Your task to perform on an android device: turn off priority inbox in the gmail app Image 0: 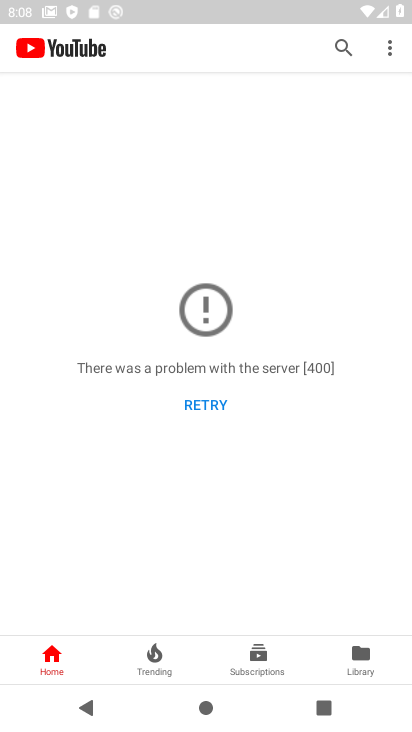
Step 0: drag from (268, 571) to (245, 73)
Your task to perform on an android device: turn off priority inbox in the gmail app Image 1: 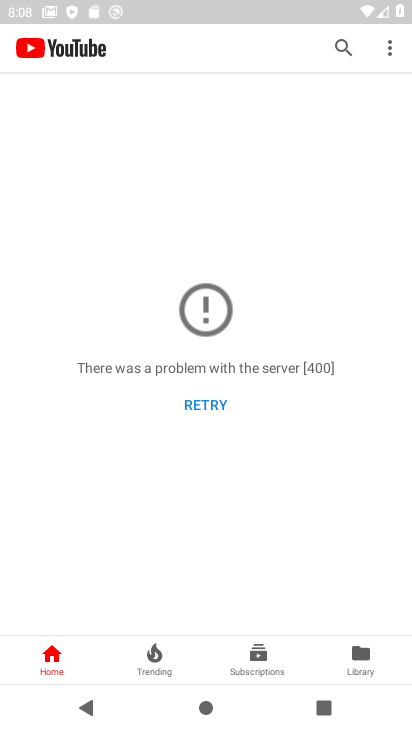
Step 1: drag from (119, 481) to (141, 82)
Your task to perform on an android device: turn off priority inbox in the gmail app Image 2: 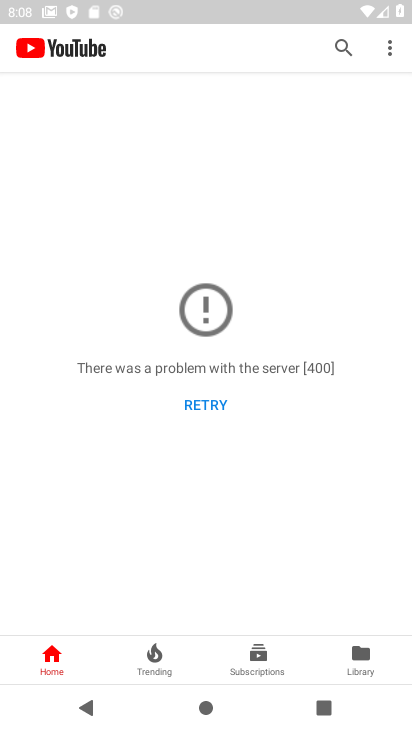
Step 2: press back button
Your task to perform on an android device: turn off priority inbox in the gmail app Image 3: 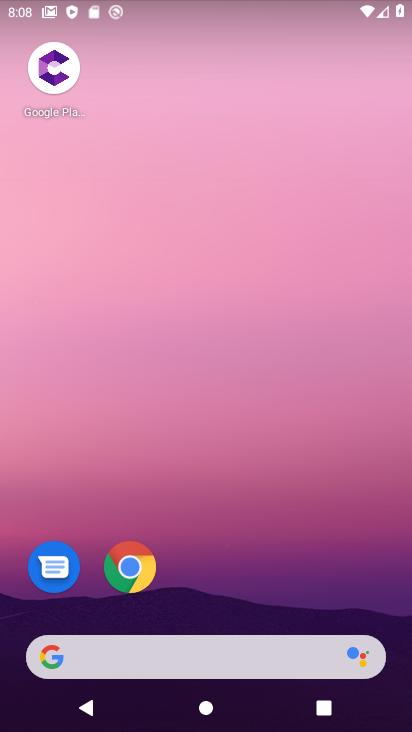
Step 3: drag from (246, 566) to (199, 0)
Your task to perform on an android device: turn off priority inbox in the gmail app Image 4: 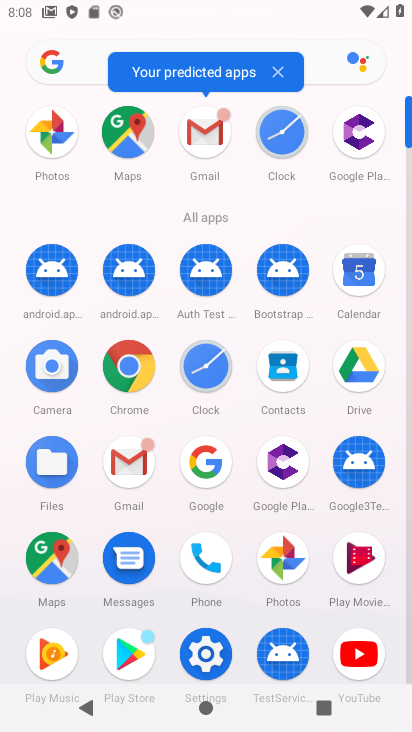
Step 4: click (207, 132)
Your task to perform on an android device: turn off priority inbox in the gmail app Image 5: 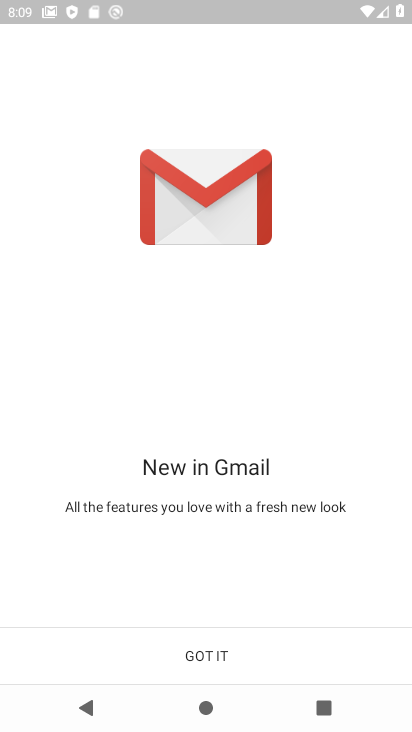
Step 5: click (265, 658)
Your task to perform on an android device: turn off priority inbox in the gmail app Image 6: 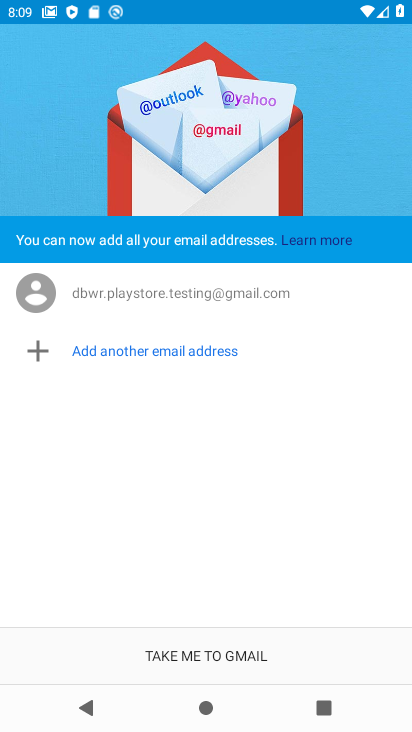
Step 6: click (265, 658)
Your task to perform on an android device: turn off priority inbox in the gmail app Image 7: 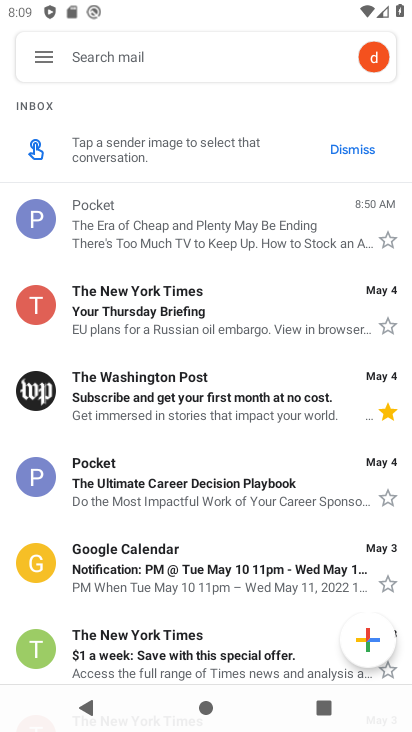
Step 7: click (41, 56)
Your task to perform on an android device: turn off priority inbox in the gmail app Image 8: 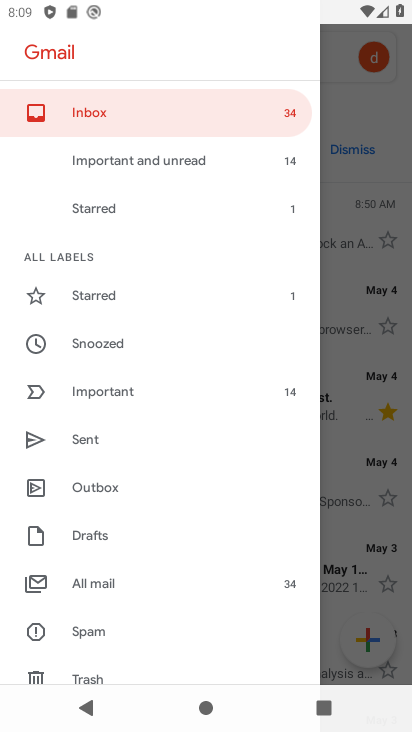
Step 8: drag from (183, 563) to (170, 249)
Your task to perform on an android device: turn off priority inbox in the gmail app Image 9: 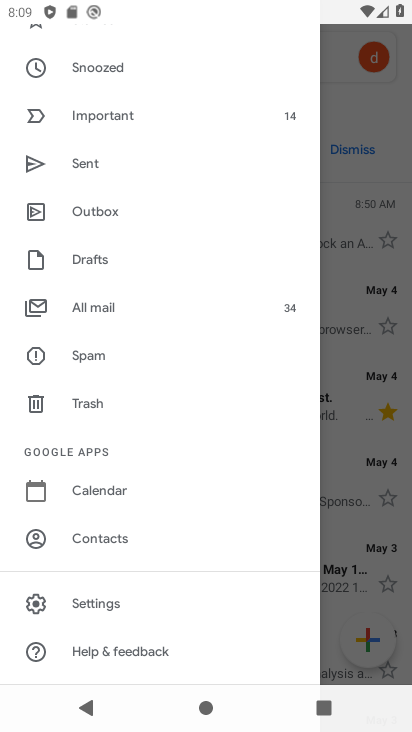
Step 9: drag from (146, 606) to (184, 277)
Your task to perform on an android device: turn off priority inbox in the gmail app Image 10: 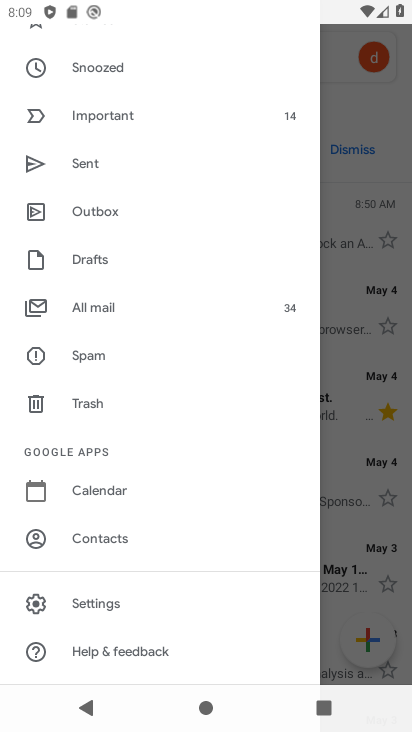
Step 10: click (107, 601)
Your task to perform on an android device: turn off priority inbox in the gmail app Image 11: 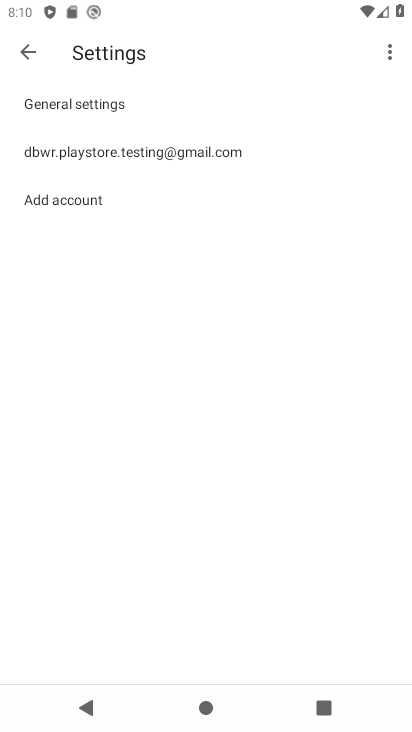
Step 11: click (132, 144)
Your task to perform on an android device: turn off priority inbox in the gmail app Image 12: 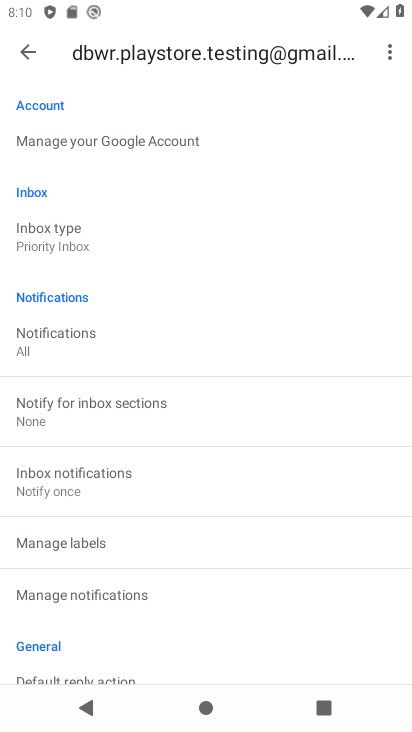
Step 12: click (61, 235)
Your task to perform on an android device: turn off priority inbox in the gmail app Image 13: 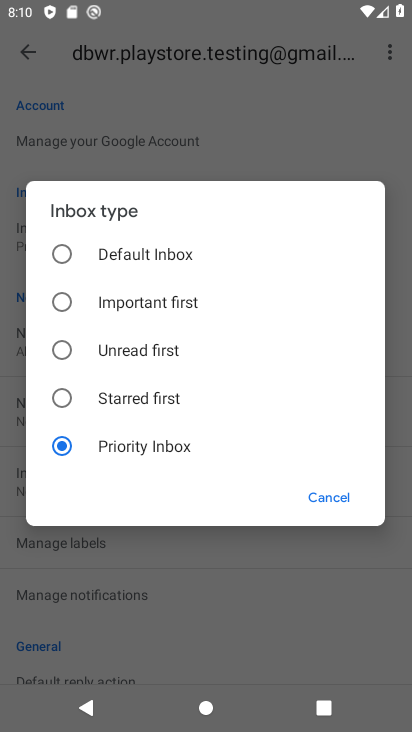
Step 13: click (61, 245)
Your task to perform on an android device: turn off priority inbox in the gmail app Image 14: 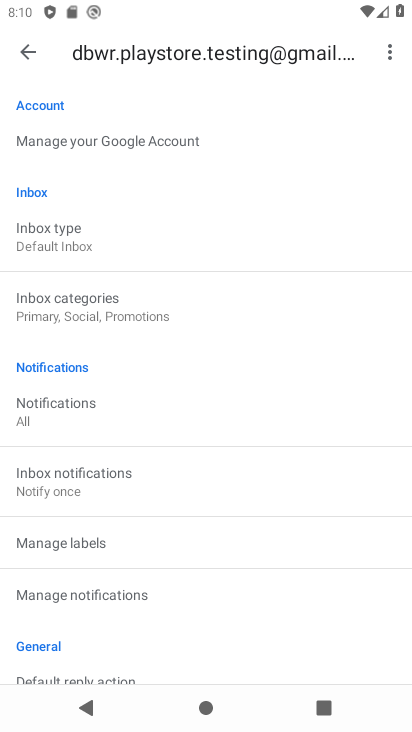
Step 14: task complete